Your task to perform on an android device: turn off improve location accuracy Image 0: 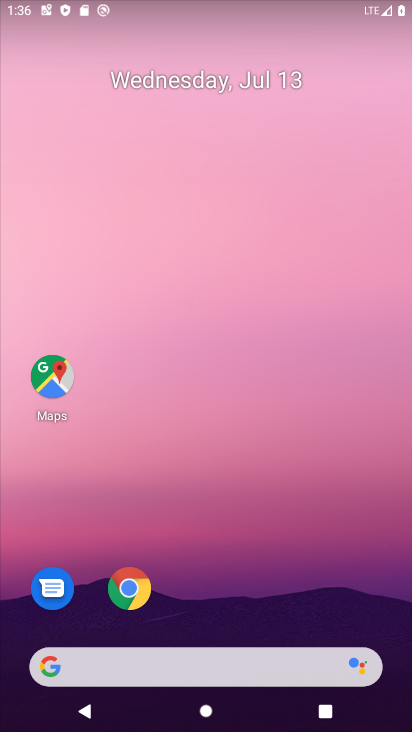
Step 0: drag from (401, 688) to (388, 158)
Your task to perform on an android device: turn off improve location accuracy Image 1: 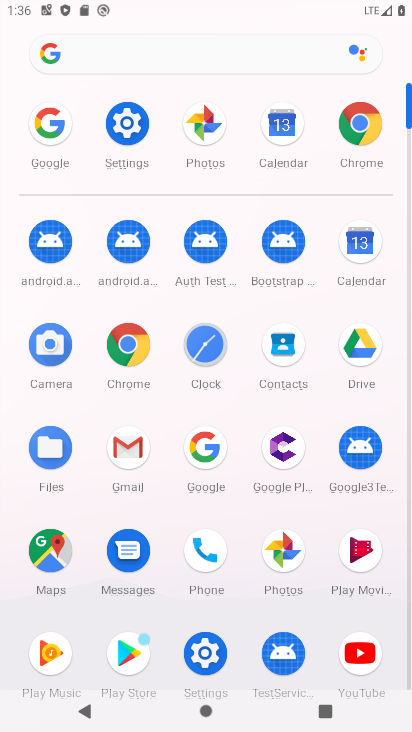
Step 1: click (129, 138)
Your task to perform on an android device: turn off improve location accuracy Image 2: 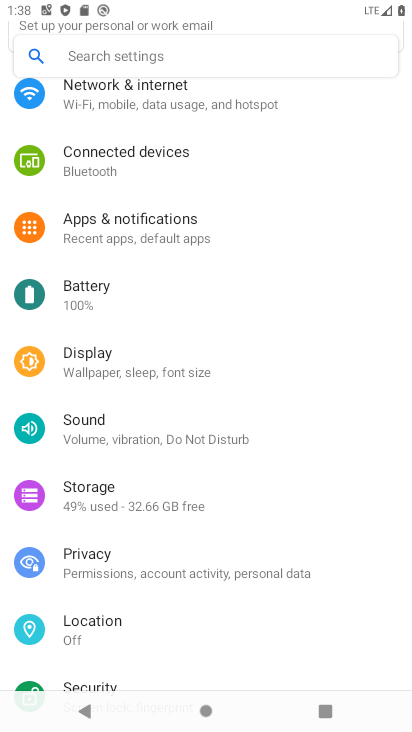
Step 2: click (80, 627)
Your task to perform on an android device: turn off improve location accuracy Image 3: 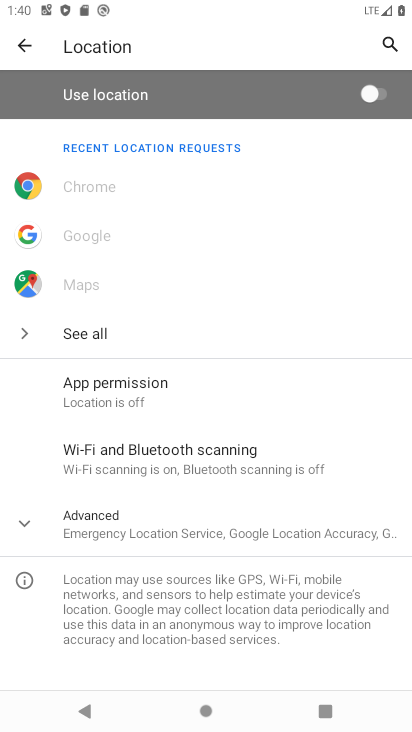
Step 3: click (37, 524)
Your task to perform on an android device: turn off improve location accuracy Image 4: 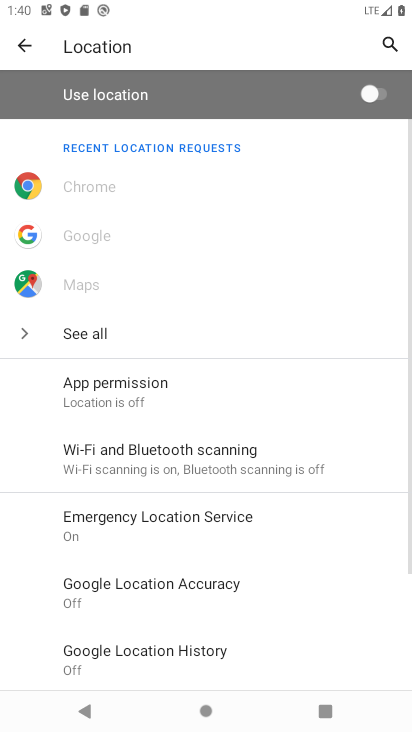
Step 4: task complete